Your task to perform on an android device: show emergency info Image 0: 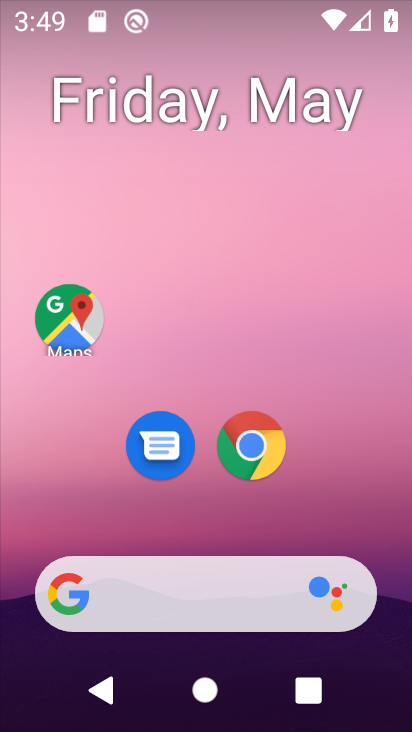
Step 0: drag from (224, 376) to (263, 51)
Your task to perform on an android device: show emergency info Image 1: 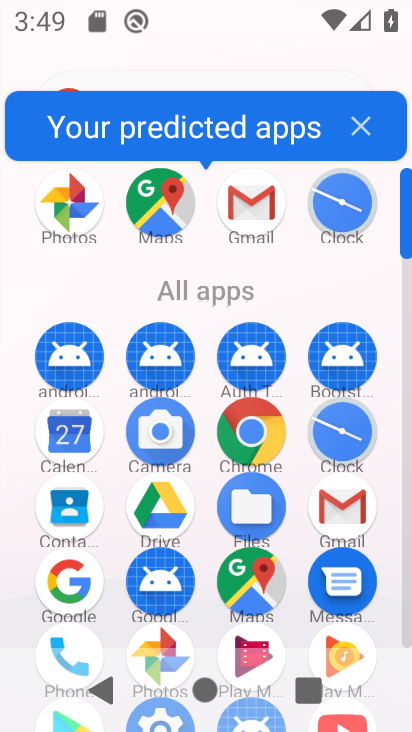
Step 1: drag from (203, 460) to (256, 108)
Your task to perform on an android device: show emergency info Image 2: 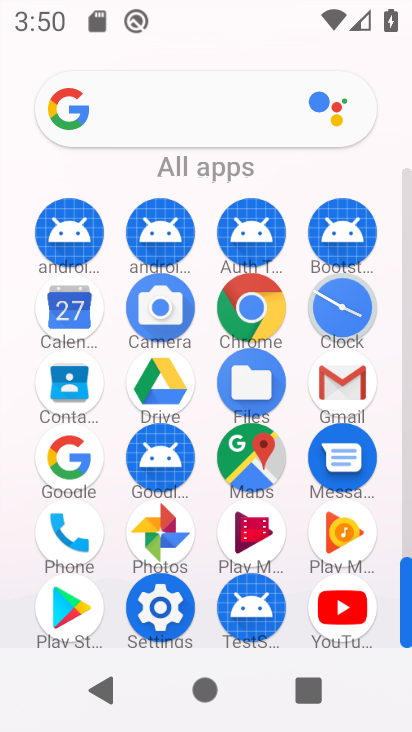
Step 2: click (168, 596)
Your task to perform on an android device: show emergency info Image 3: 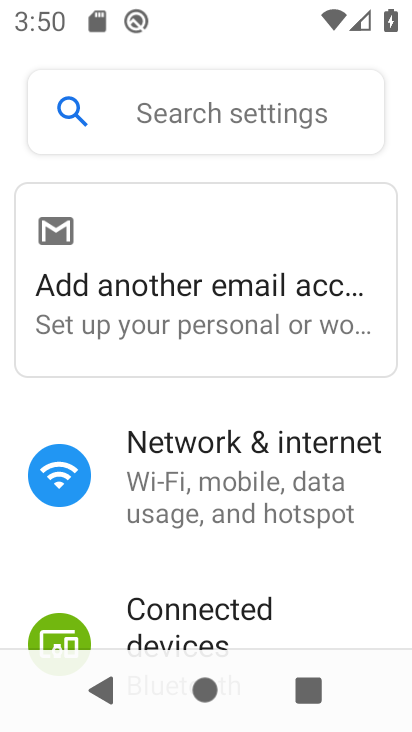
Step 3: drag from (158, 589) to (289, 92)
Your task to perform on an android device: show emergency info Image 4: 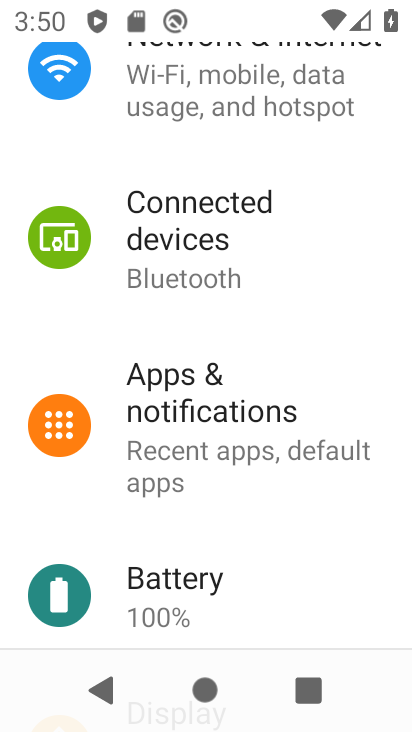
Step 4: drag from (178, 592) to (255, 23)
Your task to perform on an android device: show emergency info Image 5: 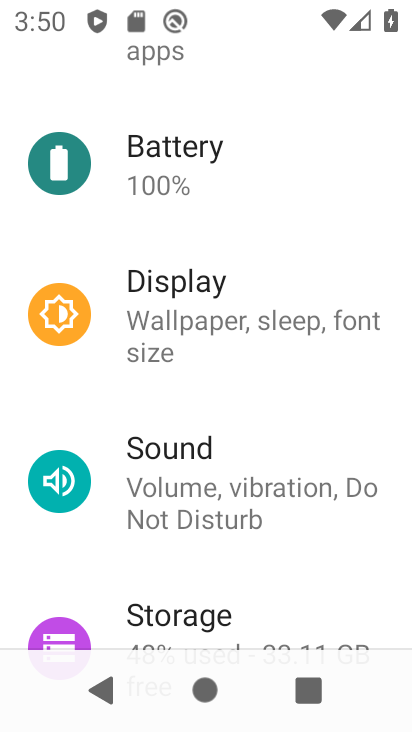
Step 5: drag from (187, 495) to (283, 62)
Your task to perform on an android device: show emergency info Image 6: 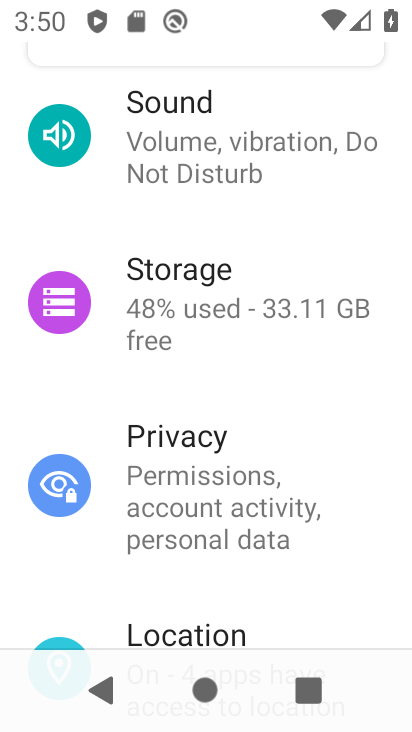
Step 6: drag from (194, 555) to (295, 19)
Your task to perform on an android device: show emergency info Image 7: 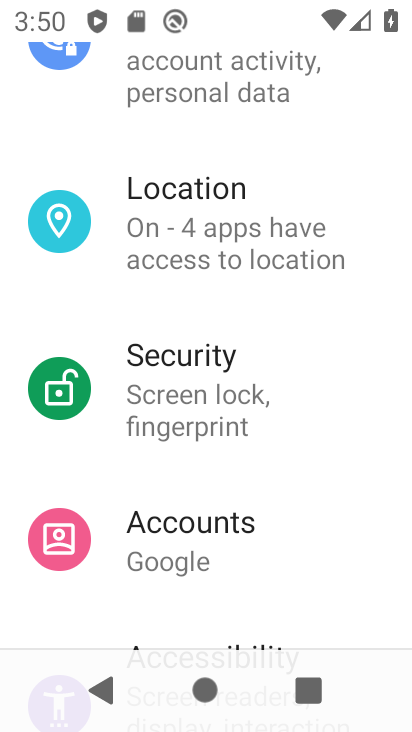
Step 7: drag from (238, 482) to (278, 25)
Your task to perform on an android device: show emergency info Image 8: 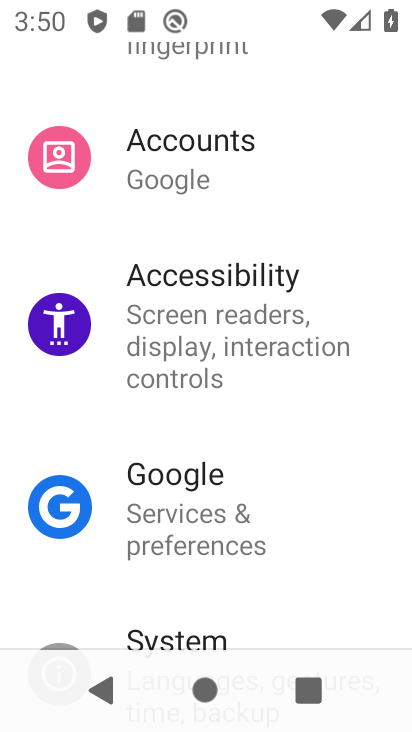
Step 8: drag from (175, 553) to (266, 0)
Your task to perform on an android device: show emergency info Image 9: 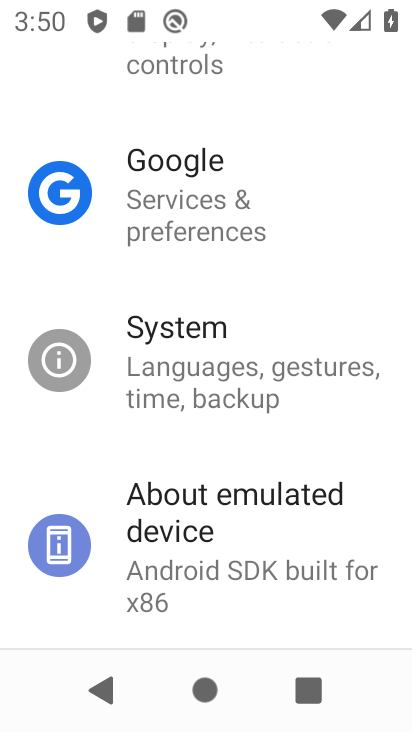
Step 9: drag from (181, 570) to (257, 0)
Your task to perform on an android device: show emergency info Image 10: 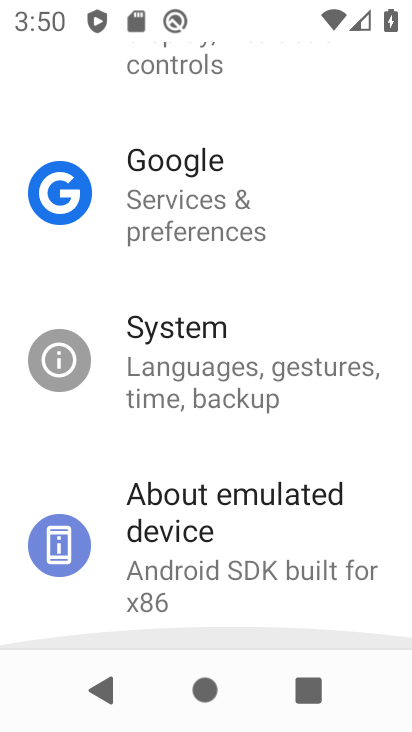
Step 10: click (227, 554)
Your task to perform on an android device: show emergency info Image 11: 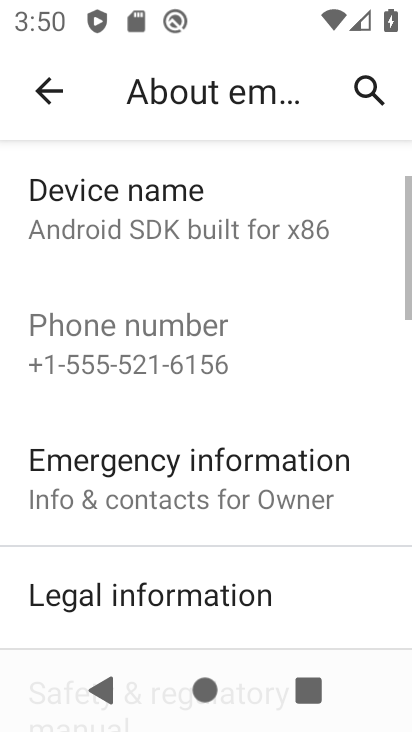
Step 11: click (149, 480)
Your task to perform on an android device: show emergency info Image 12: 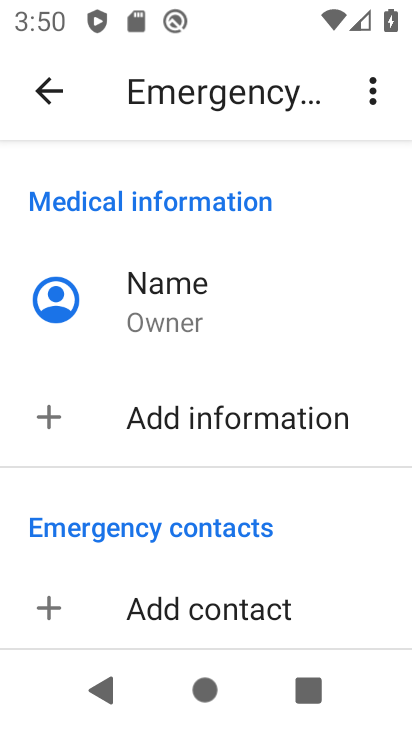
Step 12: task complete